Your task to perform on an android device: set the stopwatch Image 0: 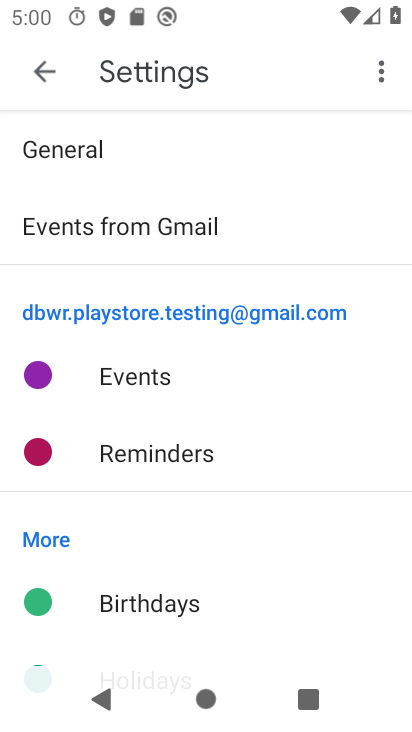
Step 0: press home button
Your task to perform on an android device: set the stopwatch Image 1: 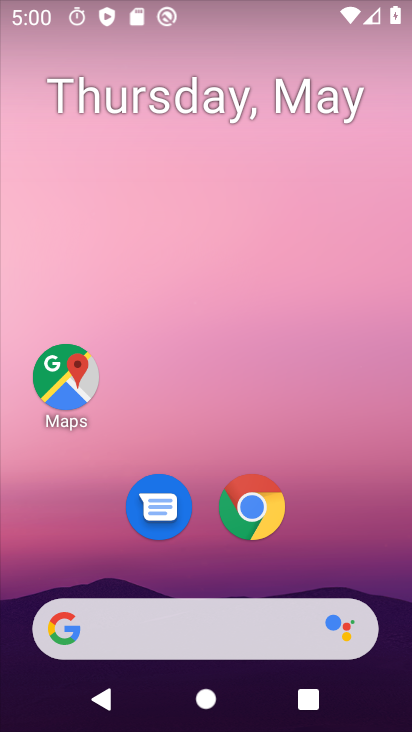
Step 1: drag from (338, 541) to (278, 182)
Your task to perform on an android device: set the stopwatch Image 2: 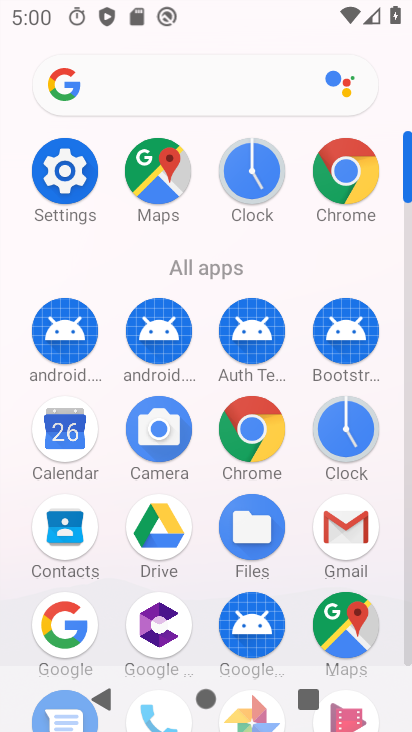
Step 2: click (343, 418)
Your task to perform on an android device: set the stopwatch Image 3: 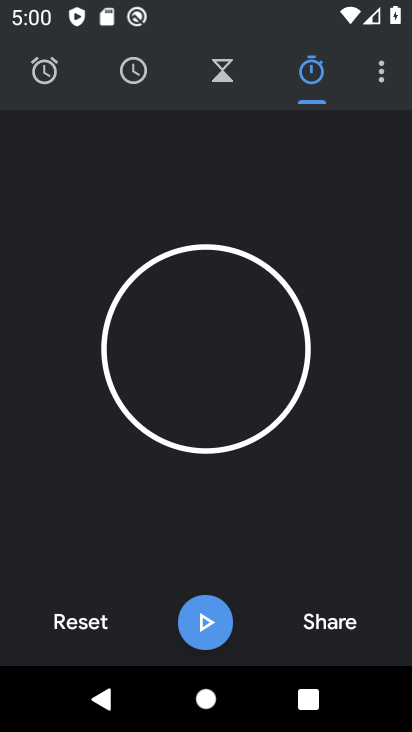
Step 3: task complete